Your task to perform on an android device: turn on sleep mode Image 0: 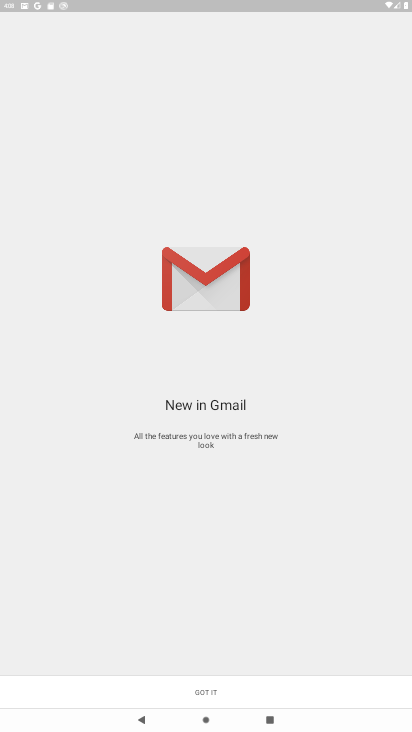
Step 0: click (205, 687)
Your task to perform on an android device: turn on sleep mode Image 1: 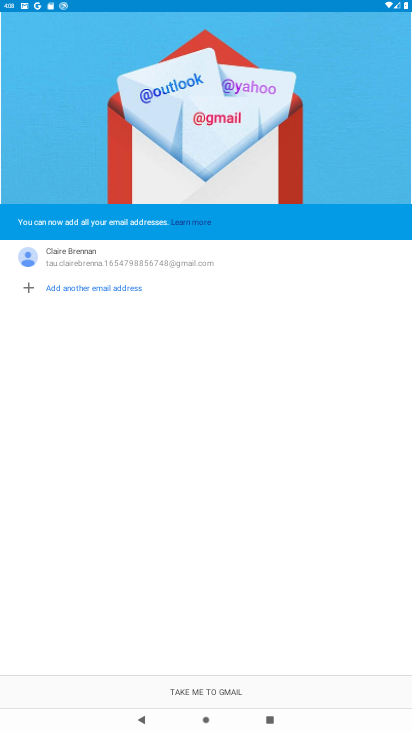
Step 1: click (220, 686)
Your task to perform on an android device: turn on sleep mode Image 2: 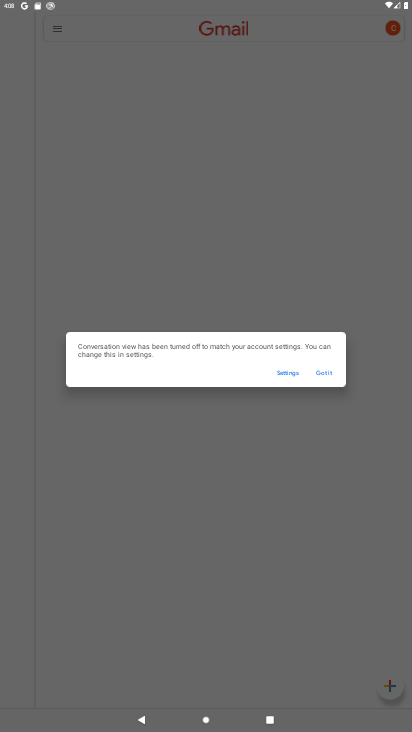
Step 2: task complete